Your task to perform on an android device: choose inbox layout in the gmail app Image 0: 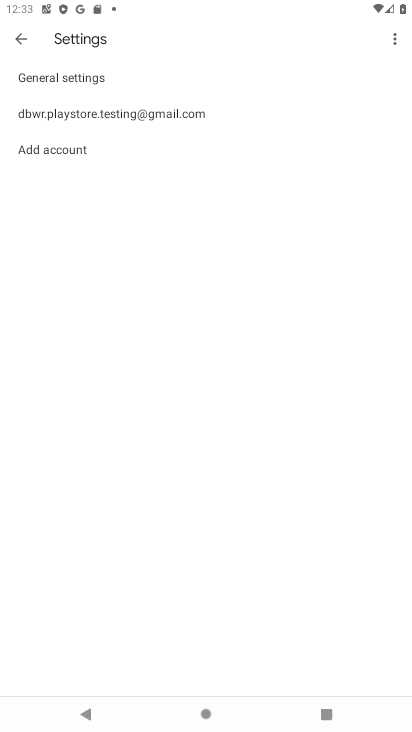
Step 0: press home button
Your task to perform on an android device: choose inbox layout in the gmail app Image 1: 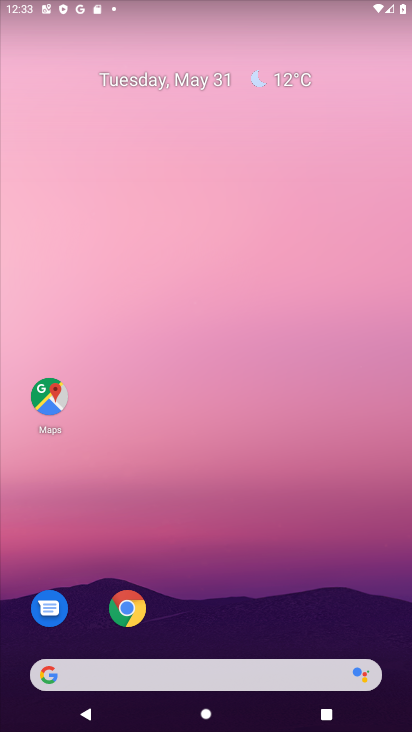
Step 1: drag from (236, 594) to (230, 79)
Your task to perform on an android device: choose inbox layout in the gmail app Image 2: 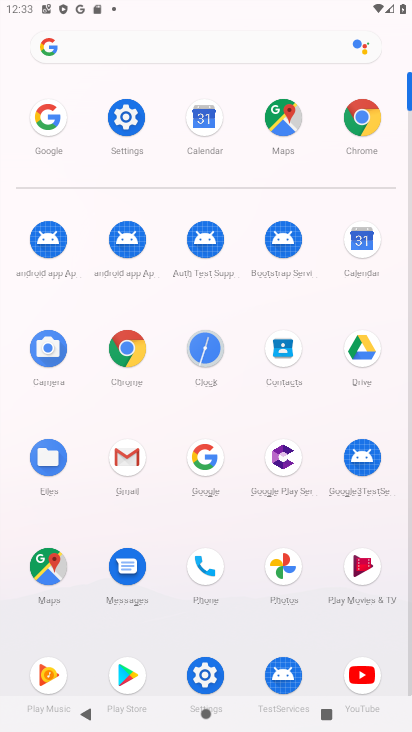
Step 2: click (123, 460)
Your task to perform on an android device: choose inbox layout in the gmail app Image 3: 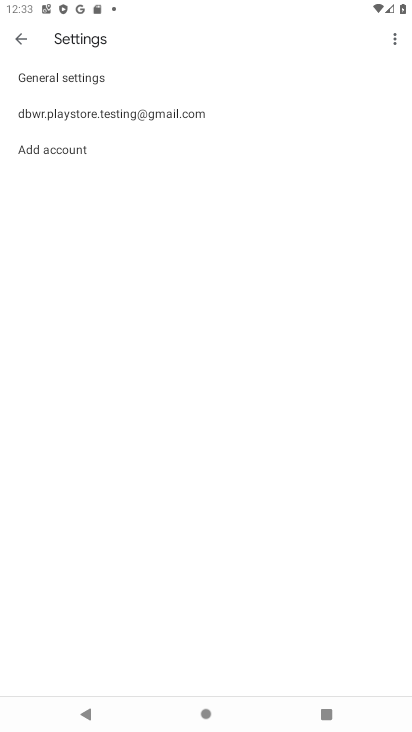
Step 3: click (104, 124)
Your task to perform on an android device: choose inbox layout in the gmail app Image 4: 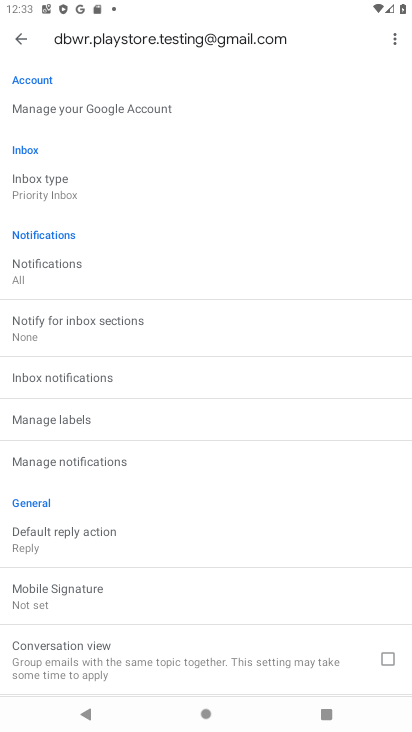
Step 4: click (80, 188)
Your task to perform on an android device: choose inbox layout in the gmail app Image 5: 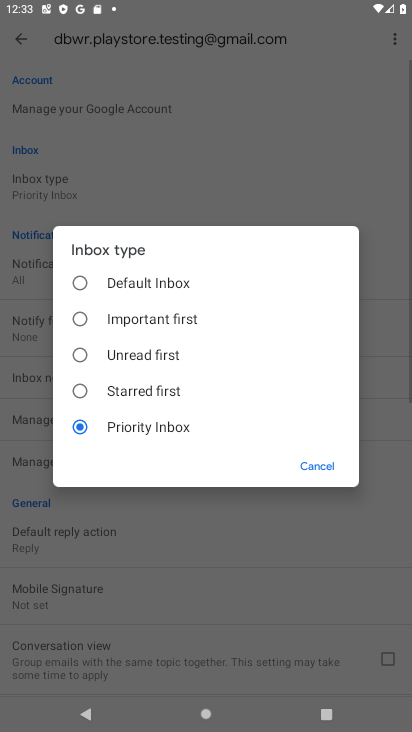
Step 5: click (77, 320)
Your task to perform on an android device: choose inbox layout in the gmail app Image 6: 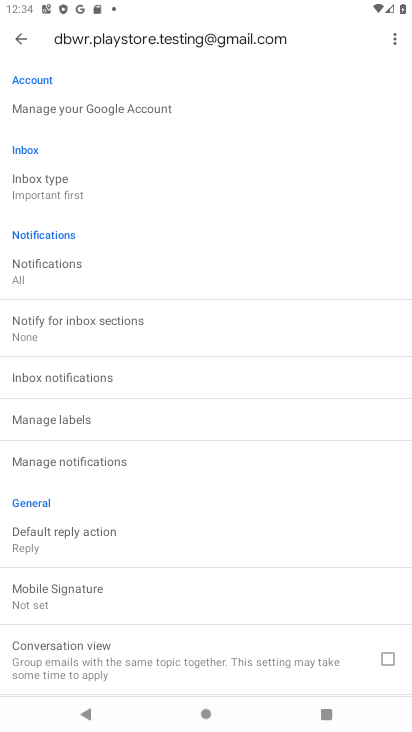
Step 6: task complete